Your task to perform on an android device: set an alarm Image 0: 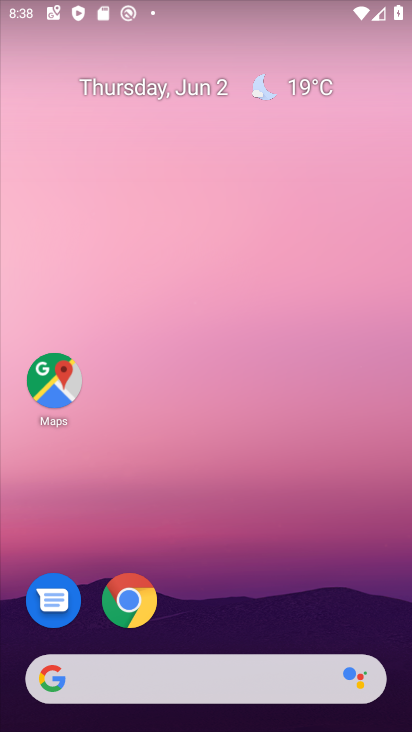
Step 0: drag from (383, 594) to (385, 326)
Your task to perform on an android device: set an alarm Image 1: 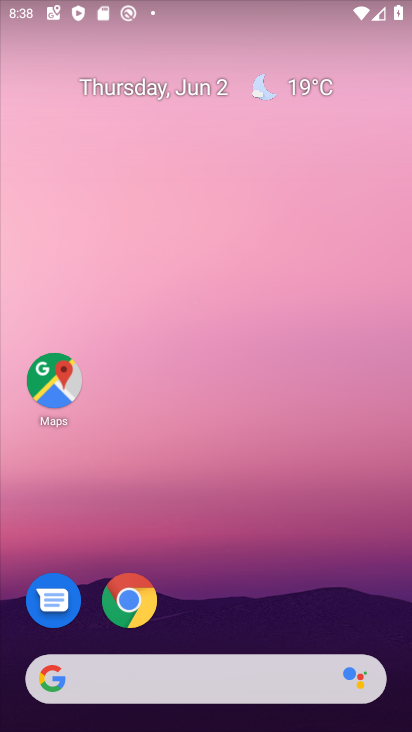
Step 1: drag from (349, 614) to (354, 379)
Your task to perform on an android device: set an alarm Image 2: 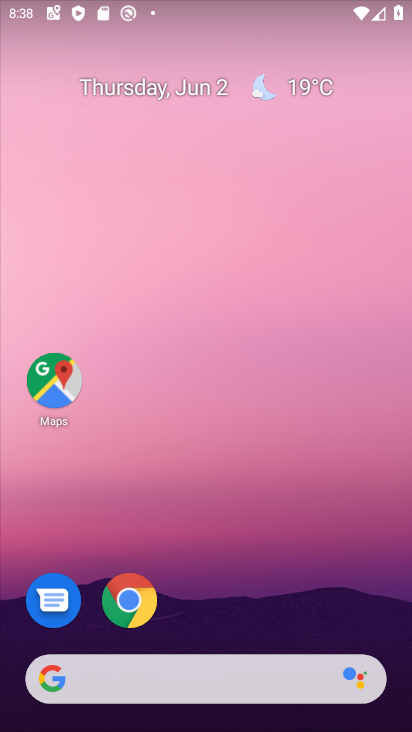
Step 2: drag from (332, 600) to (345, 141)
Your task to perform on an android device: set an alarm Image 3: 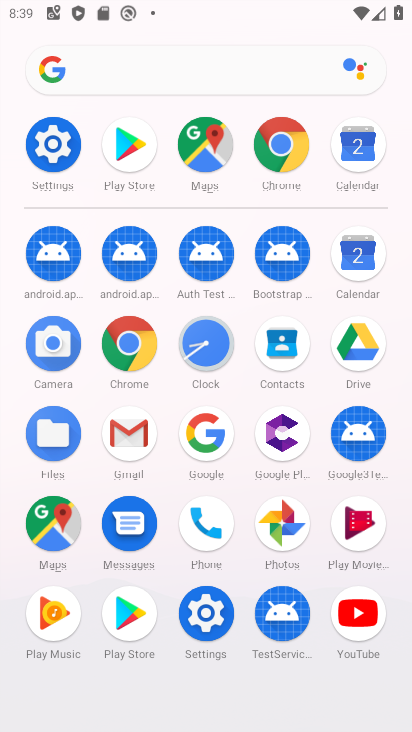
Step 3: click (210, 344)
Your task to perform on an android device: set an alarm Image 4: 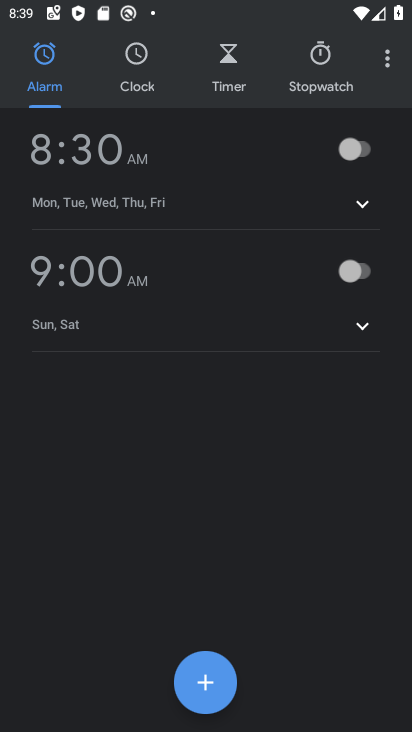
Step 4: click (235, 326)
Your task to perform on an android device: set an alarm Image 5: 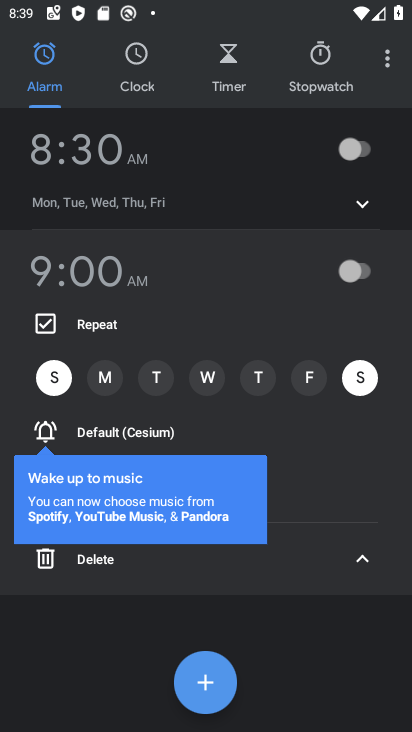
Step 5: click (207, 670)
Your task to perform on an android device: set an alarm Image 6: 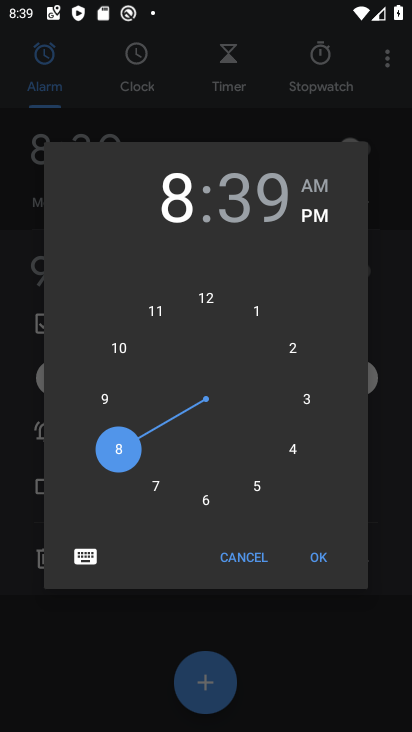
Step 6: click (207, 670)
Your task to perform on an android device: set an alarm Image 7: 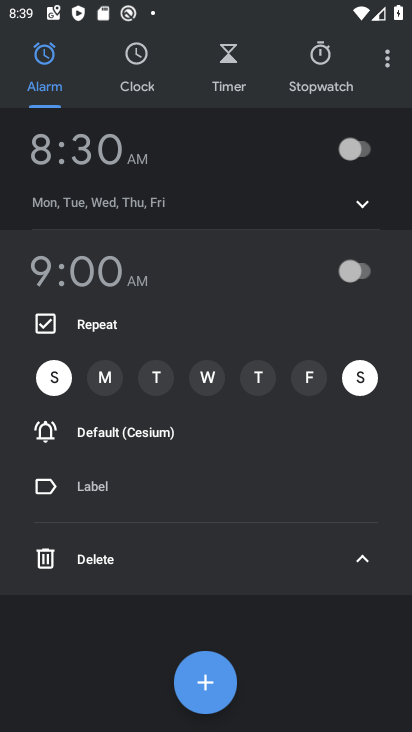
Step 7: click (212, 677)
Your task to perform on an android device: set an alarm Image 8: 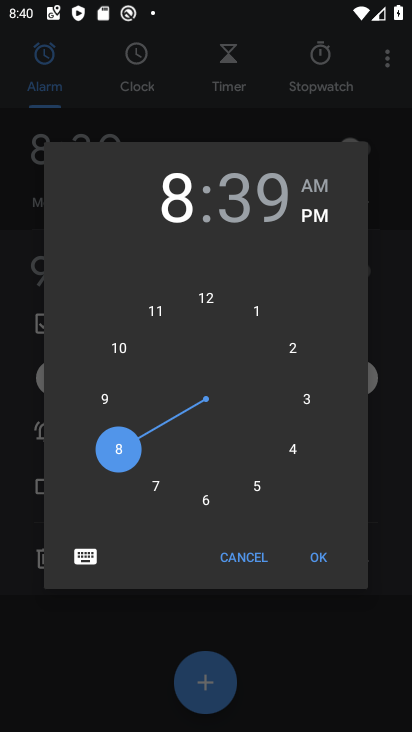
Step 8: click (306, 561)
Your task to perform on an android device: set an alarm Image 9: 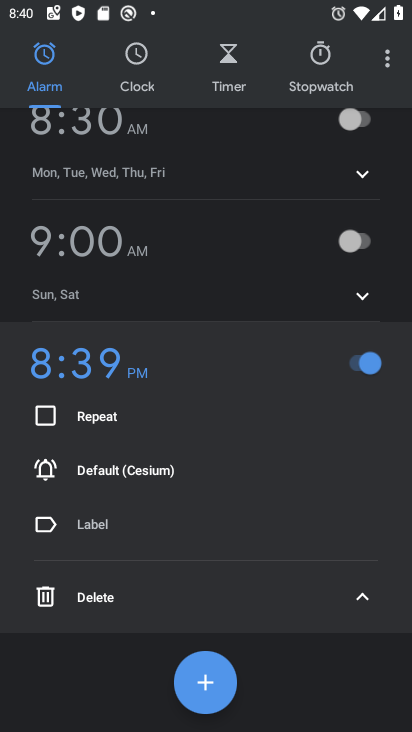
Step 9: task complete